Your task to perform on an android device: open chrome privacy settings Image 0: 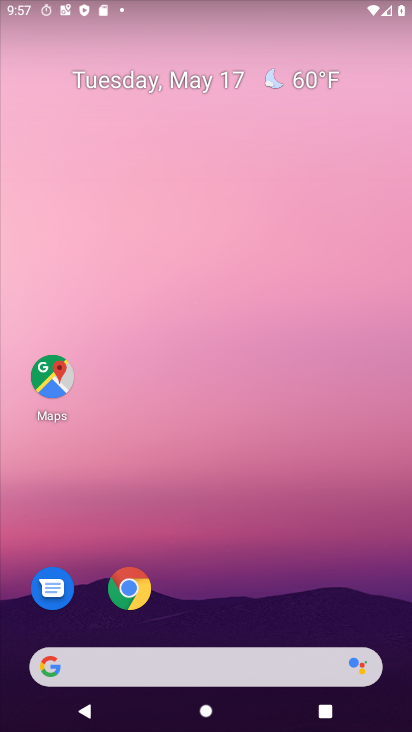
Step 0: drag from (249, 613) to (79, 20)
Your task to perform on an android device: open chrome privacy settings Image 1: 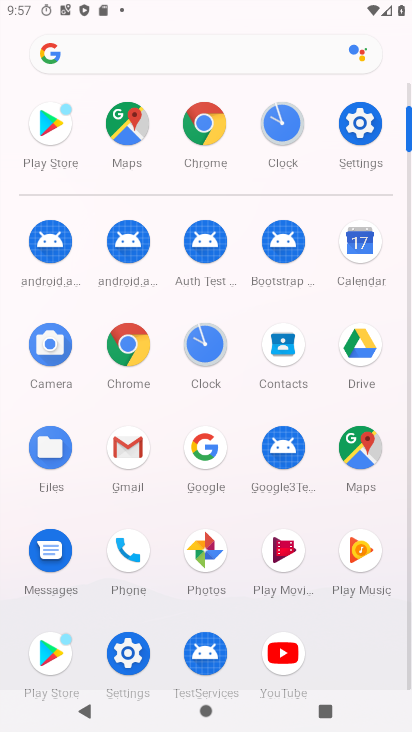
Step 1: click (204, 144)
Your task to perform on an android device: open chrome privacy settings Image 2: 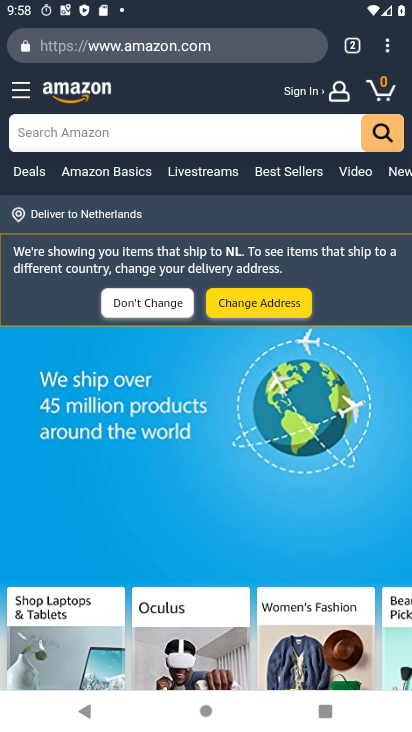
Step 2: click (386, 47)
Your task to perform on an android device: open chrome privacy settings Image 3: 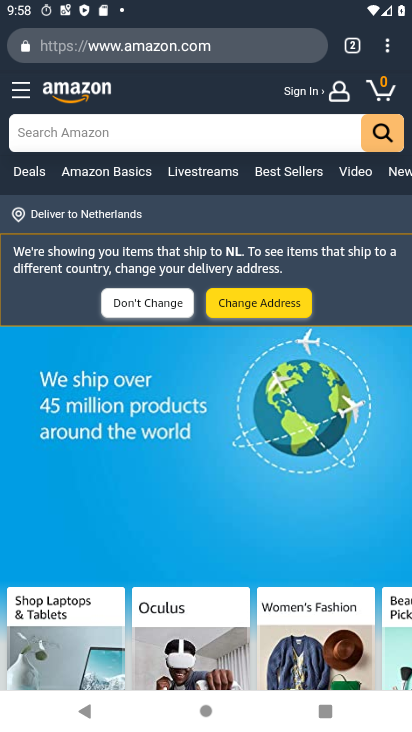
Step 3: click (386, 47)
Your task to perform on an android device: open chrome privacy settings Image 4: 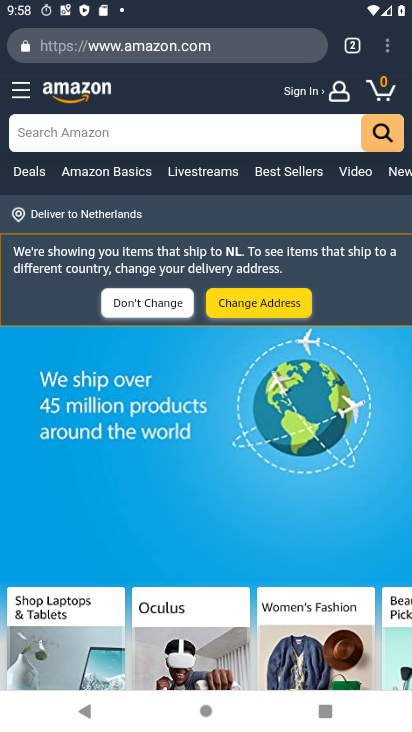
Step 4: click (386, 47)
Your task to perform on an android device: open chrome privacy settings Image 5: 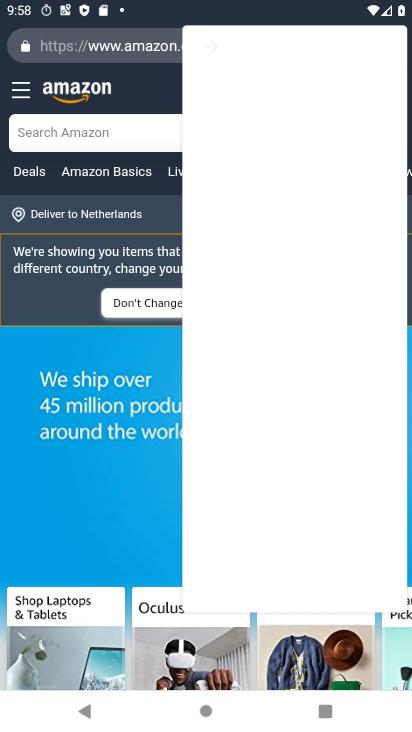
Step 5: click (386, 47)
Your task to perform on an android device: open chrome privacy settings Image 6: 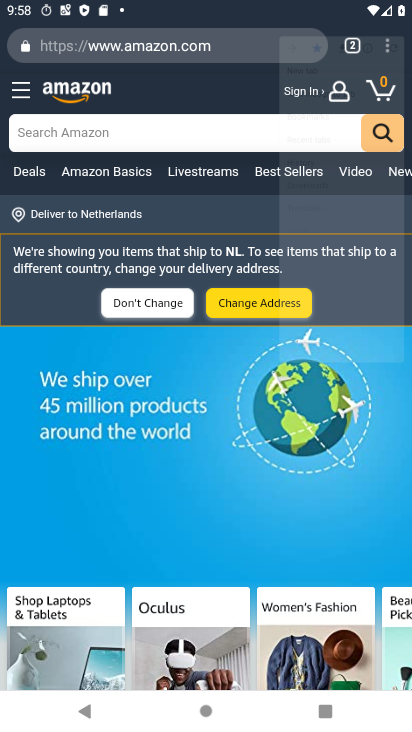
Step 6: click (386, 47)
Your task to perform on an android device: open chrome privacy settings Image 7: 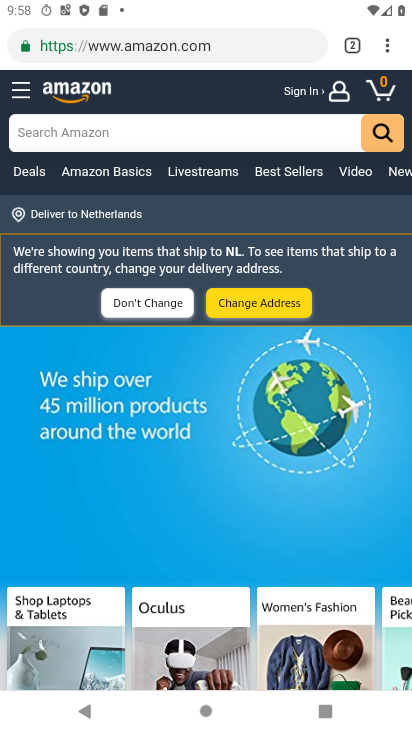
Step 7: click (386, 47)
Your task to perform on an android device: open chrome privacy settings Image 8: 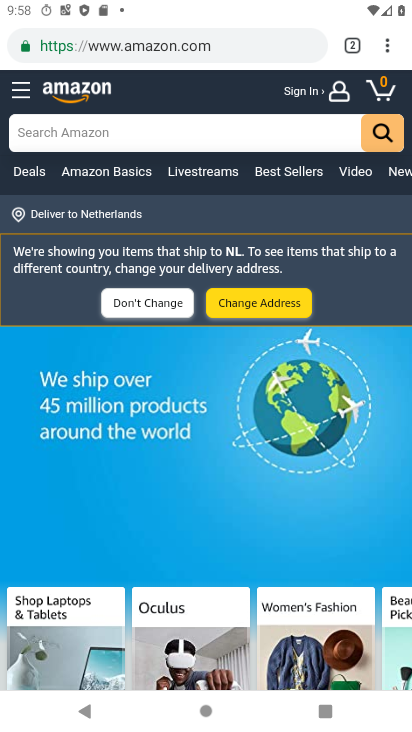
Step 8: click (386, 47)
Your task to perform on an android device: open chrome privacy settings Image 9: 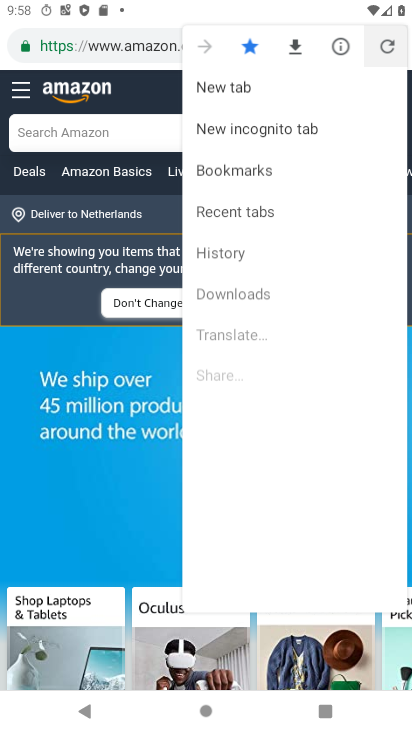
Step 9: click (386, 47)
Your task to perform on an android device: open chrome privacy settings Image 10: 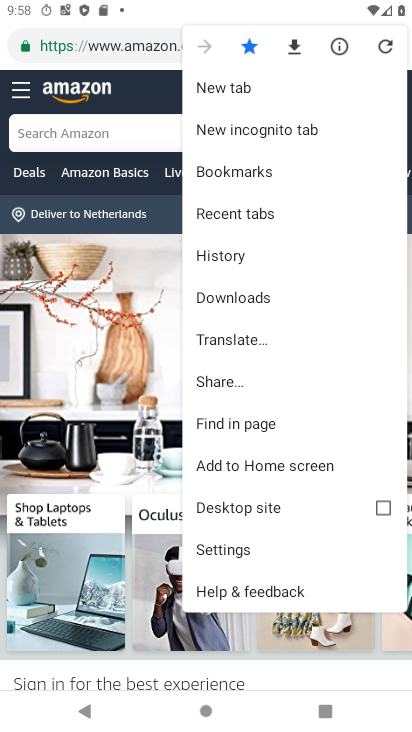
Step 10: click (232, 545)
Your task to perform on an android device: open chrome privacy settings Image 11: 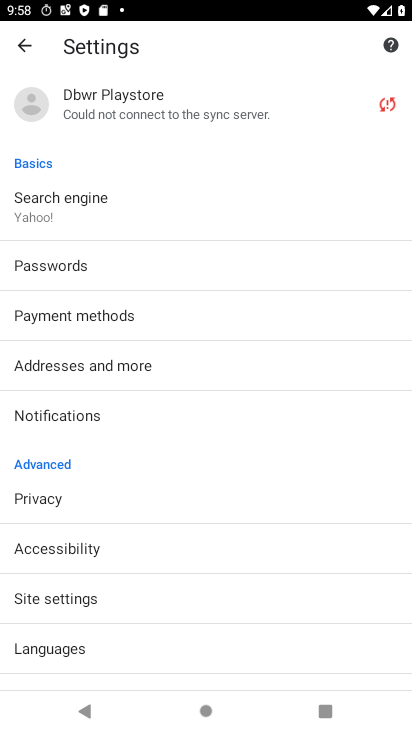
Step 11: click (39, 493)
Your task to perform on an android device: open chrome privacy settings Image 12: 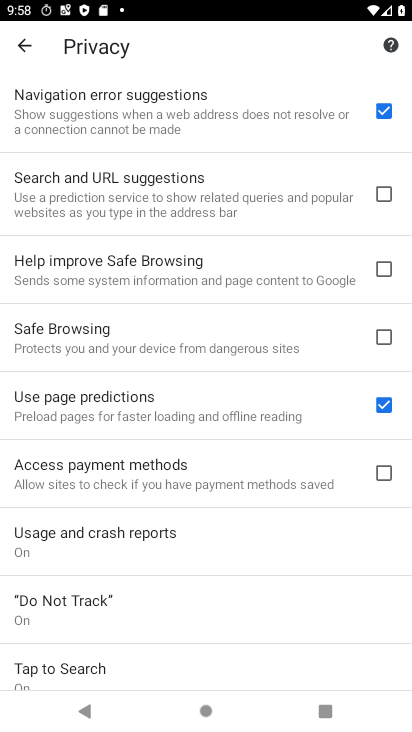
Step 12: task complete